Your task to perform on an android device: toggle notification dots Image 0: 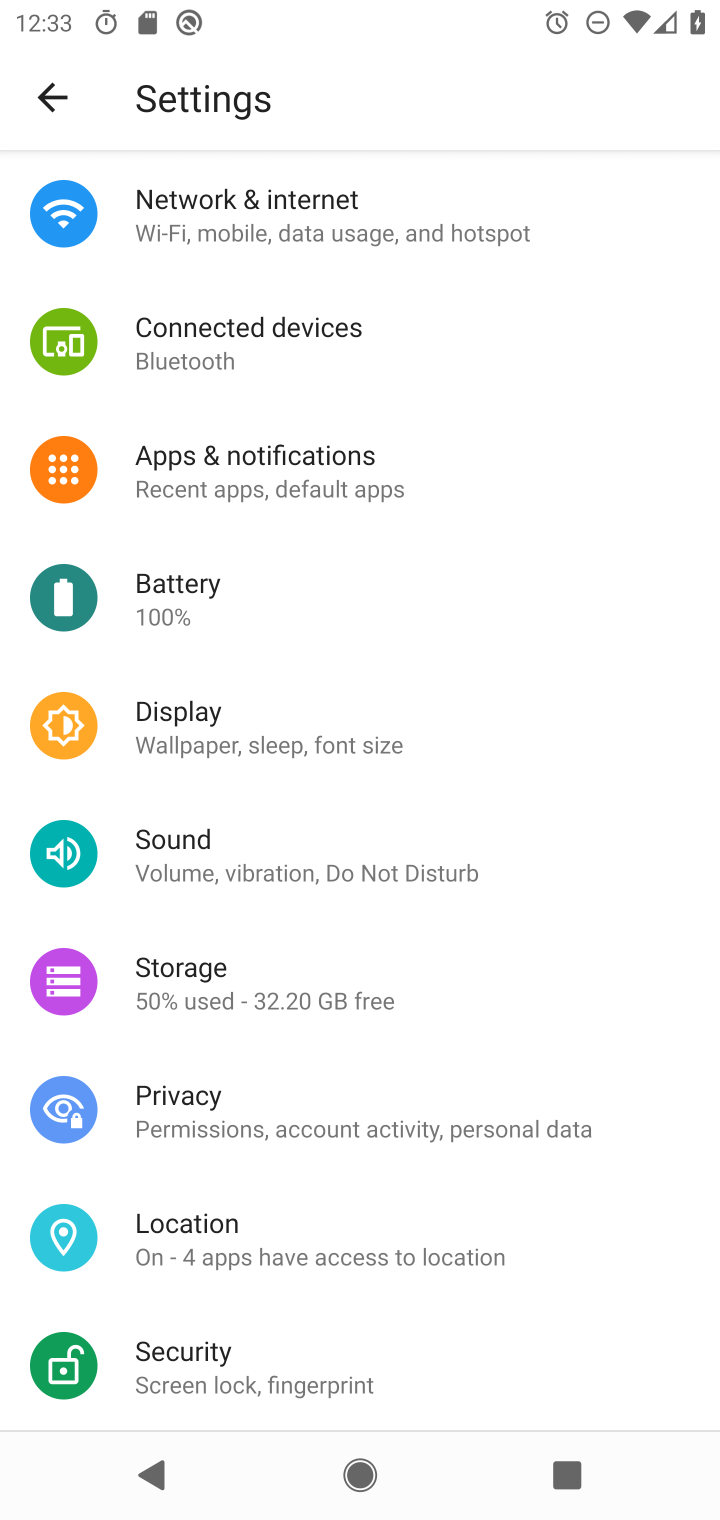
Step 0: click (288, 453)
Your task to perform on an android device: toggle notification dots Image 1: 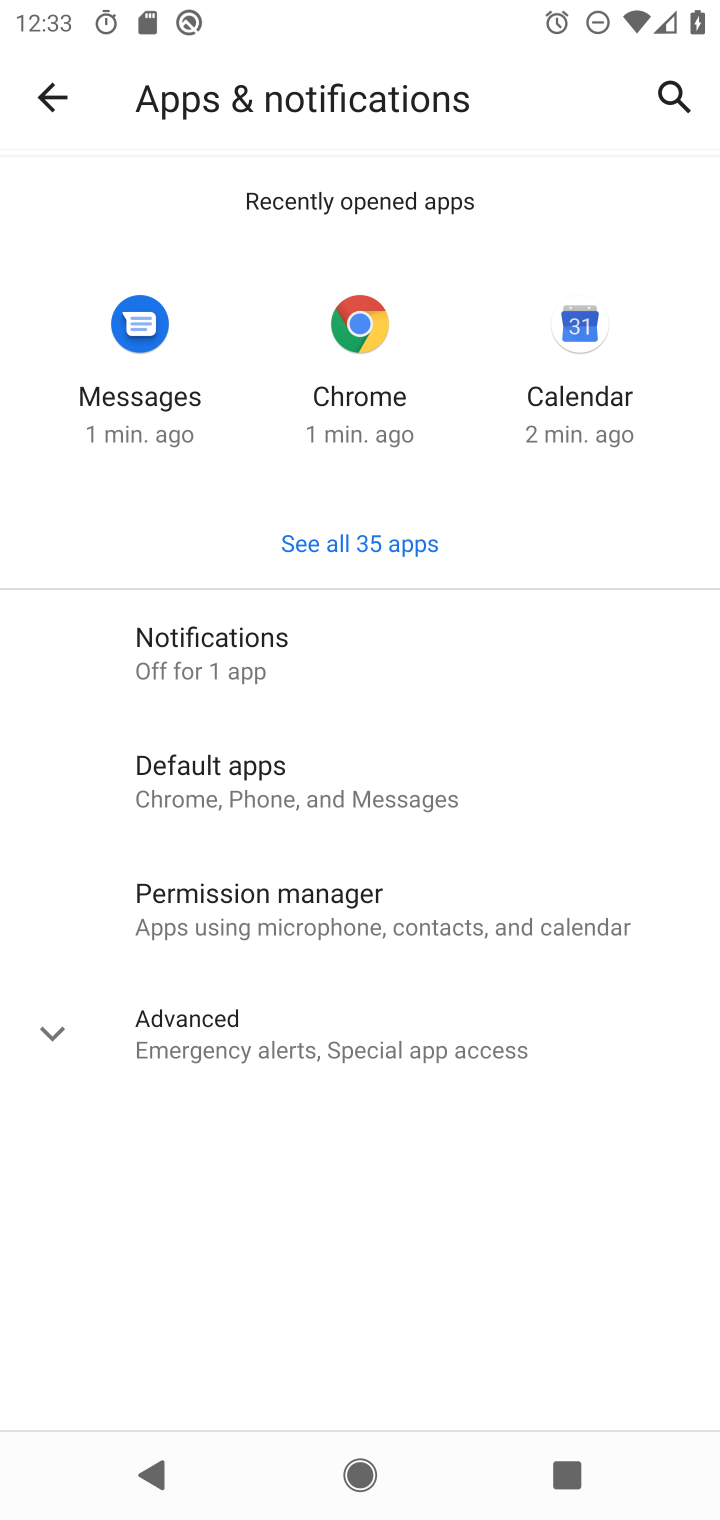
Step 1: click (249, 651)
Your task to perform on an android device: toggle notification dots Image 2: 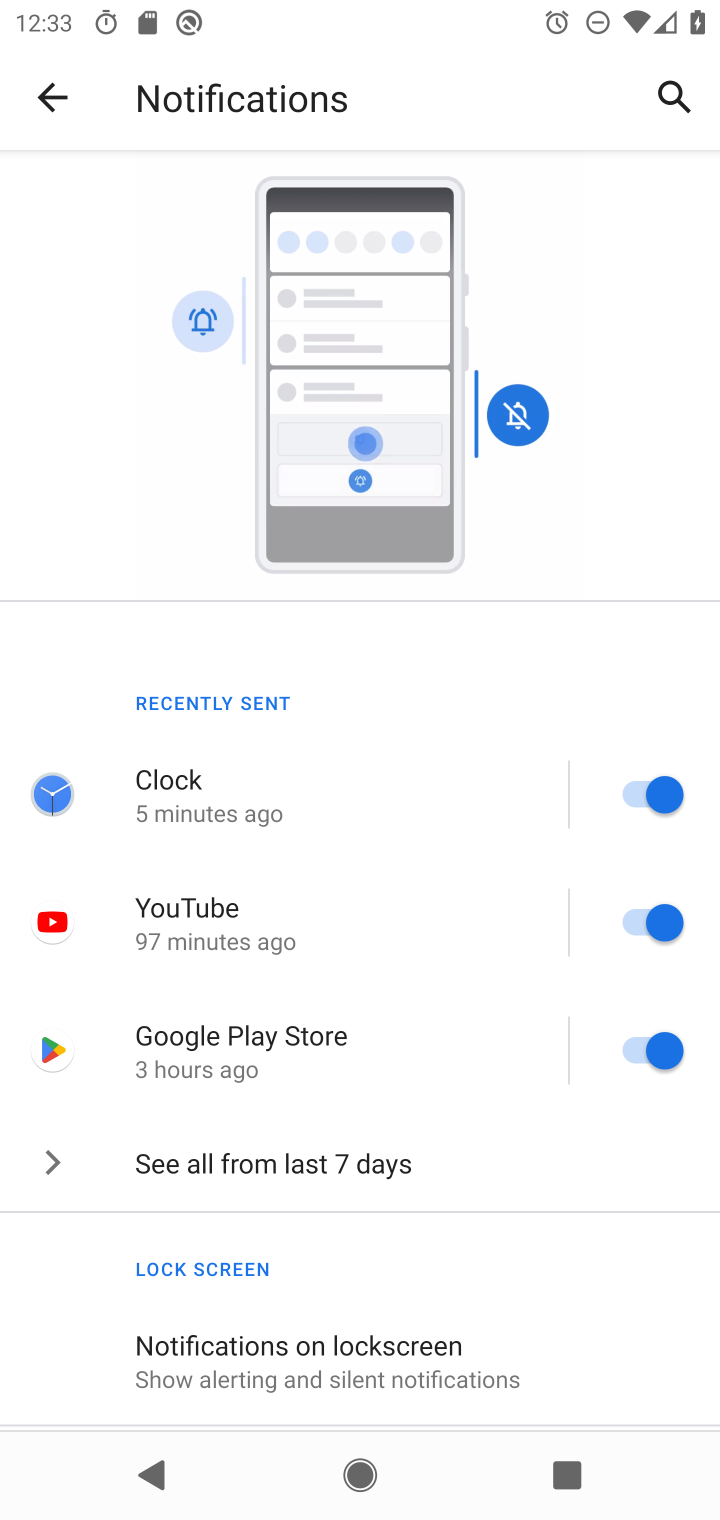
Step 2: drag from (372, 1264) to (490, 605)
Your task to perform on an android device: toggle notification dots Image 3: 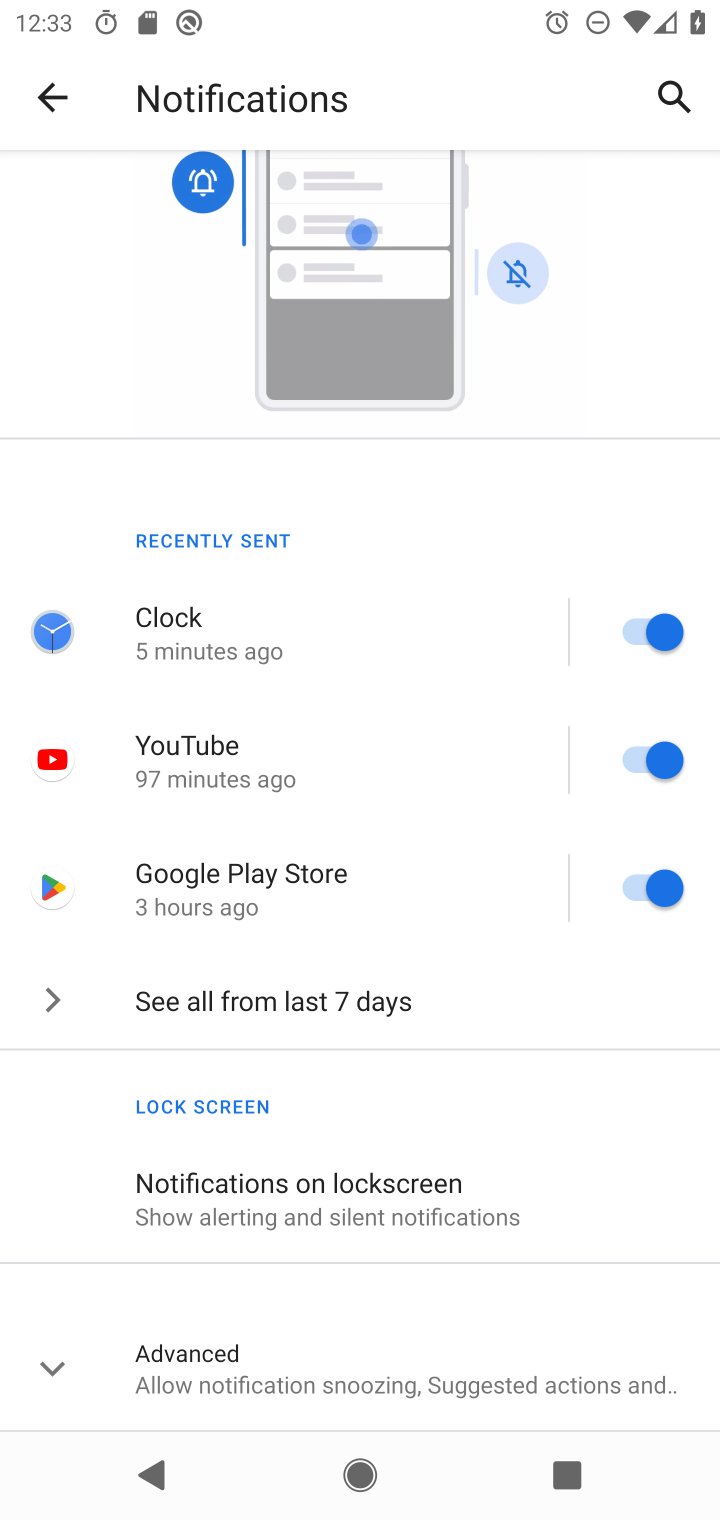
Step 3: click (259, 1342)
Your task to perform on an android device: toggle notification dots Image 4: 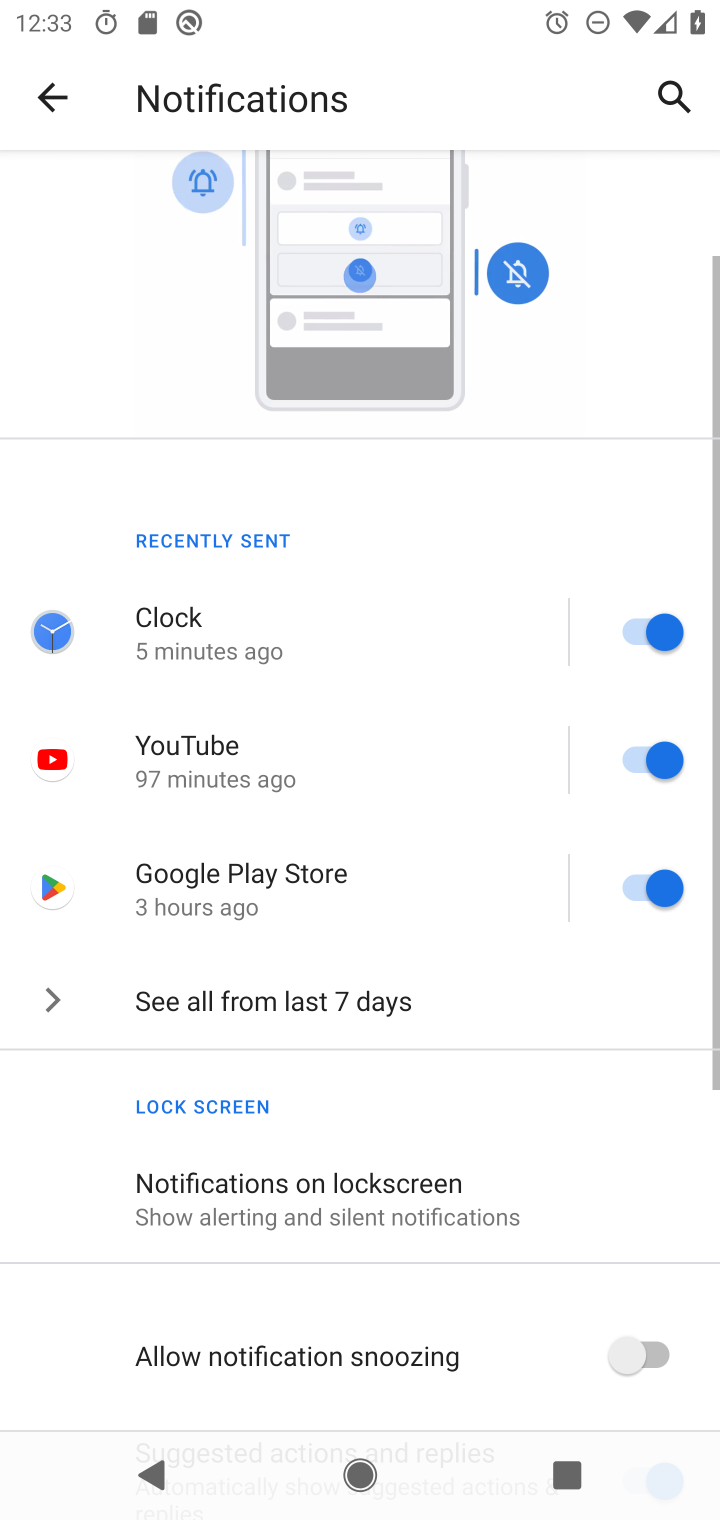
Step 4: drag from (461, 1106) to (559, 106)
Your task to perform on an android device: toggle notification dots Image 5: 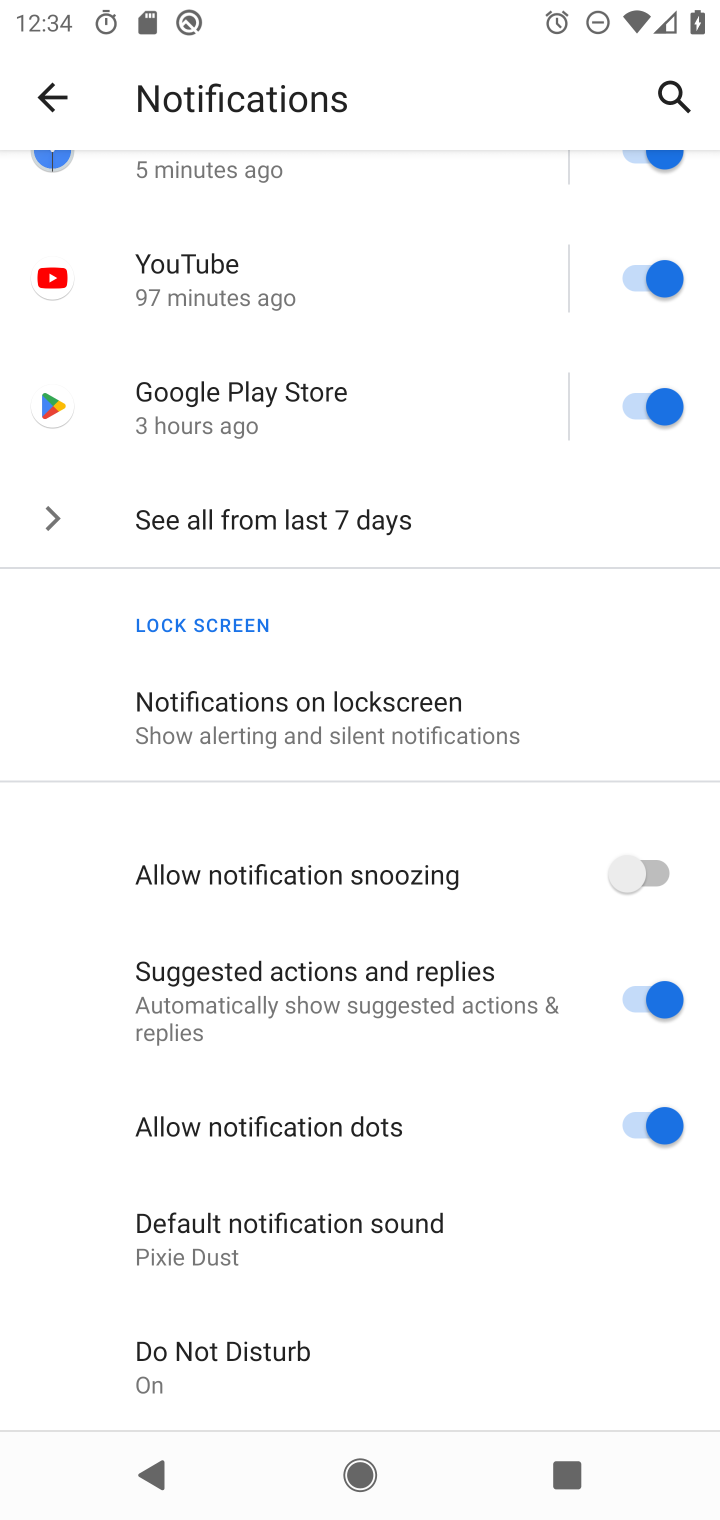
Step 5: click (643, 1120)
Your task to perform on an android device: toggle notification dots Image 6: 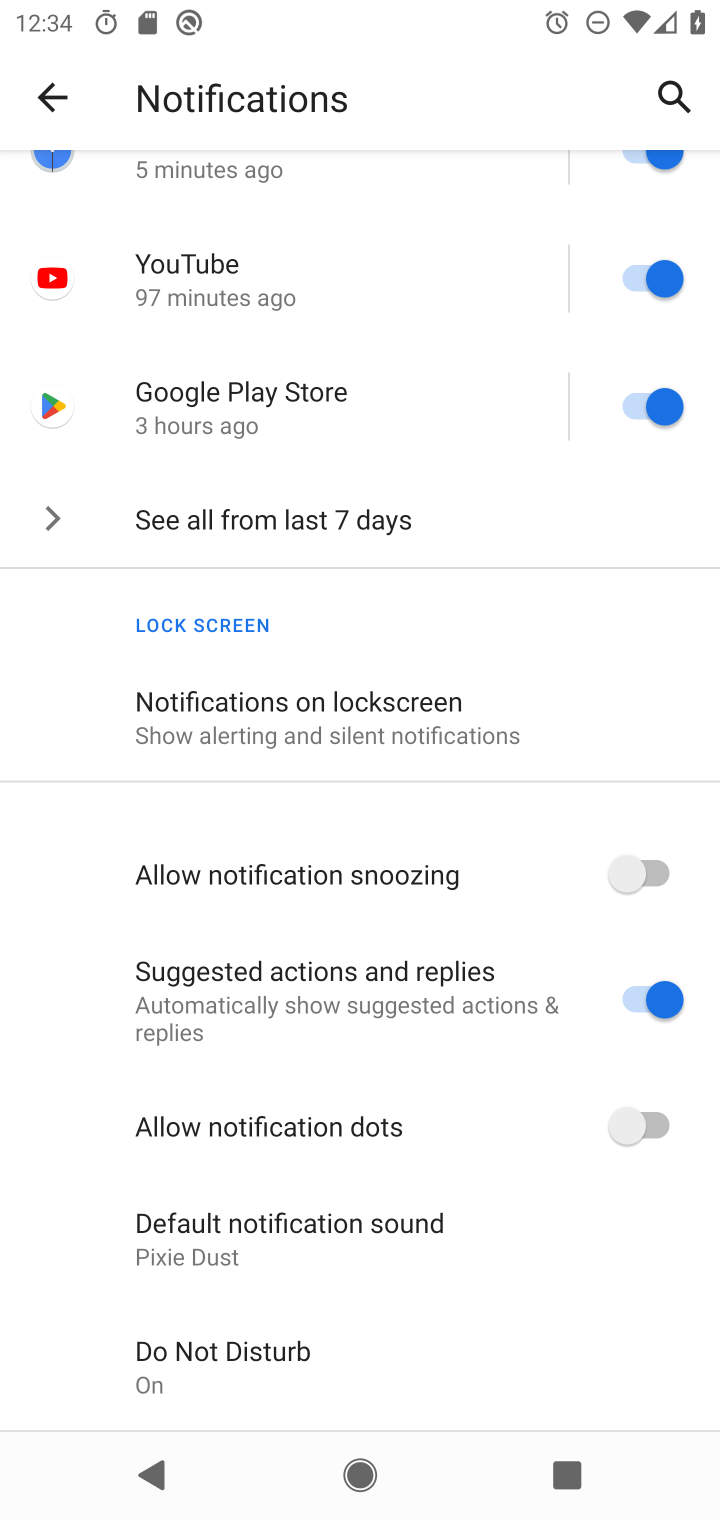
Step 6: task complete